Your task to perform on an android device: Open Reddit.com Image 0: 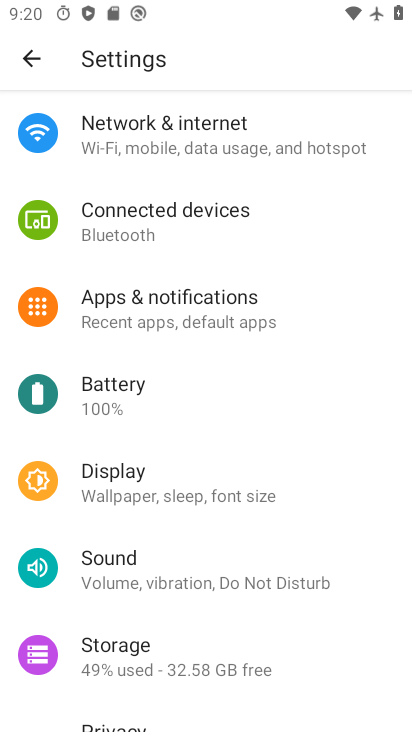
Step 0: press home button
Your task to perform on an android device: Open Reddit.com Image 1: 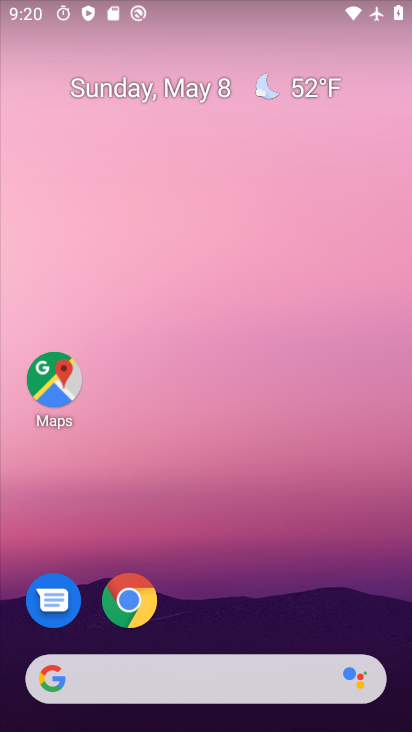
Step 1: click (135, 603)
Your task to perform on an android device: Open Reddit.com Image 2: 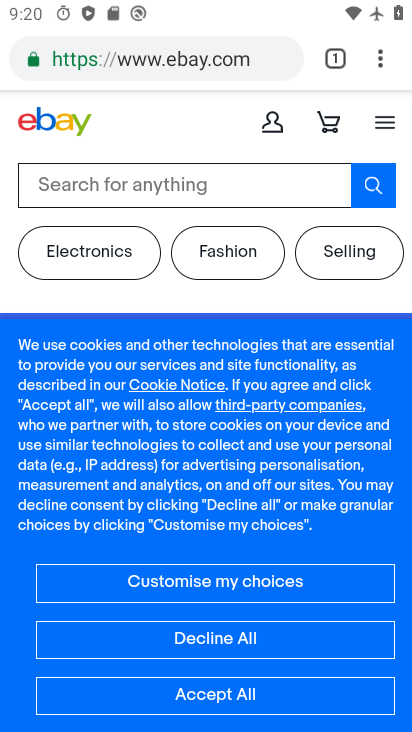
Step 2: click (206, 59)
Your task to perform on an android device: Open Reddit.com Image 3: 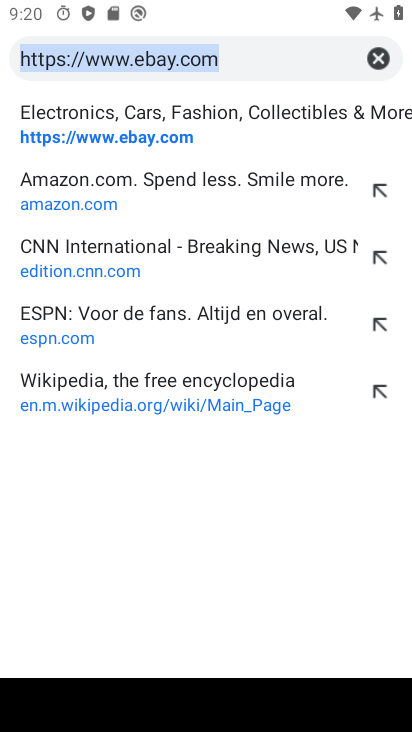
Step 3: type "Reddit.com"
Your task to perform on an android device: Open Reddit.com Image 4: 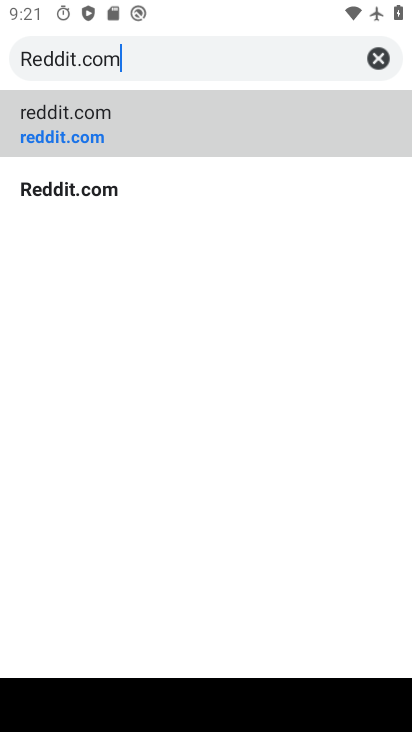
Step 4: click (93, 137)
Your task to perform on an android device: Open Reddit.com Image 5: 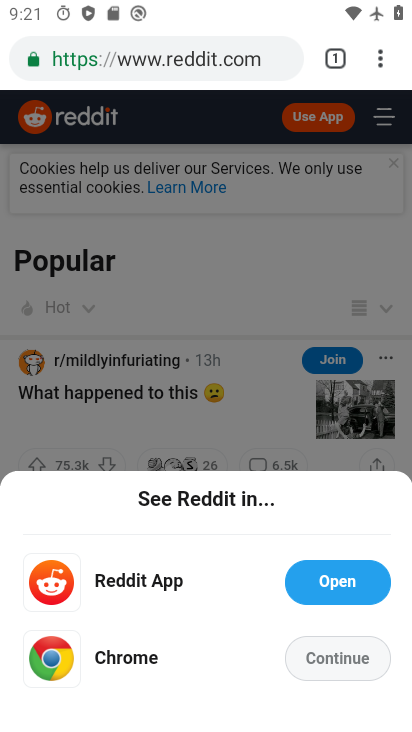
Step 5: task complete